Your task to perform on an android device: set default search engine in the chrome app Image 0: 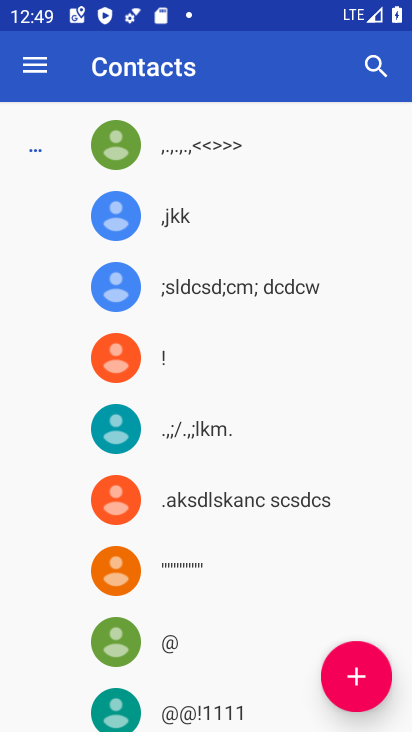
Step 0: press home button
Your task to perform on an android device: set default search engine in the chrome app Image 1: 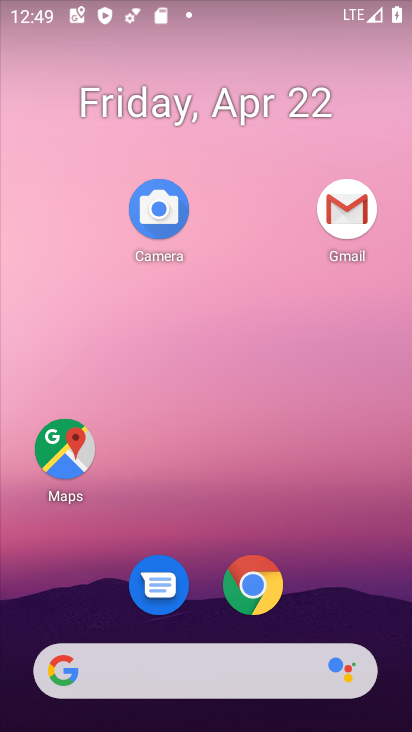
Step 1: click (267, 585)
Your task to perform on an android device: set default search engine in the chrome app Image 2: 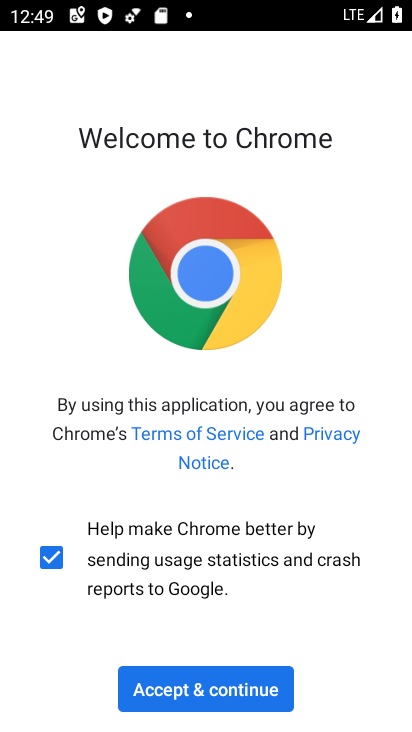
Step 2: click (262, 676)
Your task to perform on an android device: set default search engine in the chrome app Image 3: 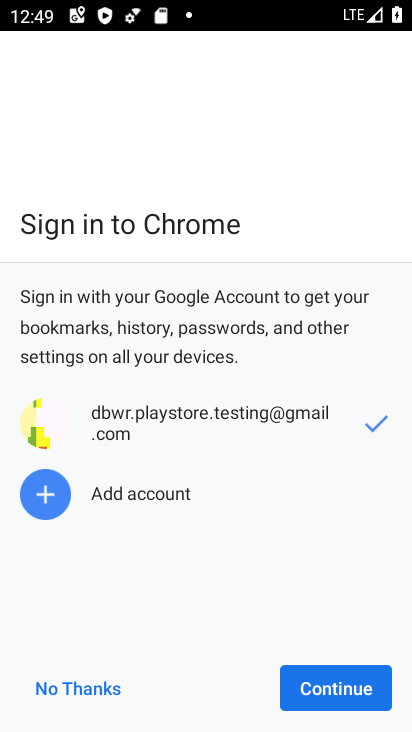
Step 3: click (316, 688)
Your task to perform on an android device: set default search engine in the chrome app Image 4: 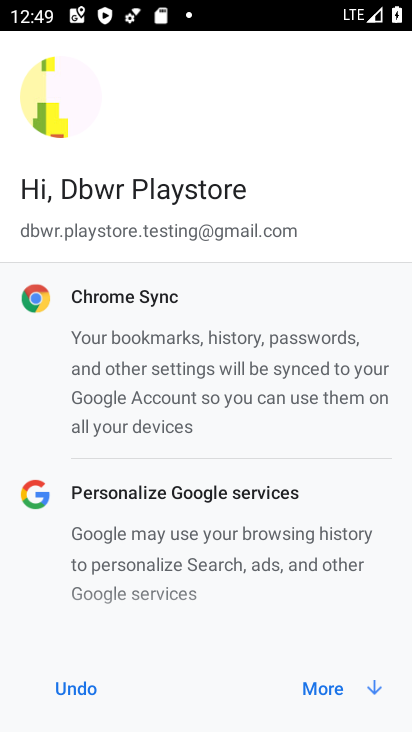
Step 4: click (322, 683)
Your task to perform on an android device: set default search engine in the chrome app Image 5: 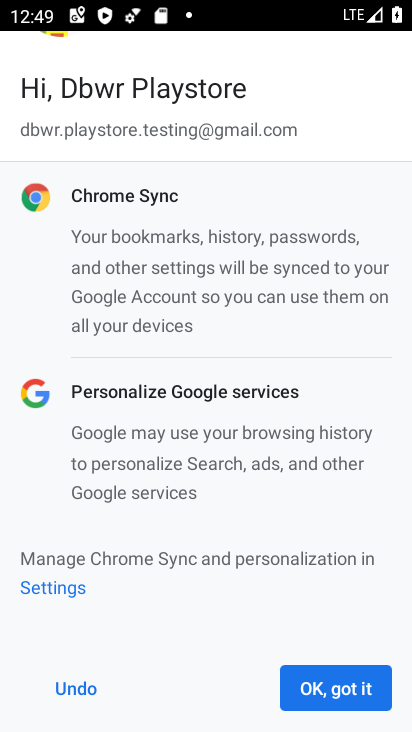
Step 5: click (324, 683)
Your task to perform on an android device: set default search engine in the chrome app Image 6: 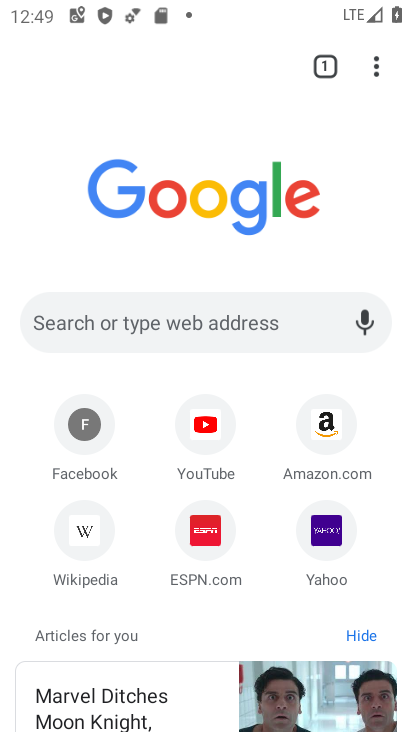
Step 6: drag from (375, 58) to (312, 571)
Your task to perform on an android device: set default search engine in the chrome app Image 7: 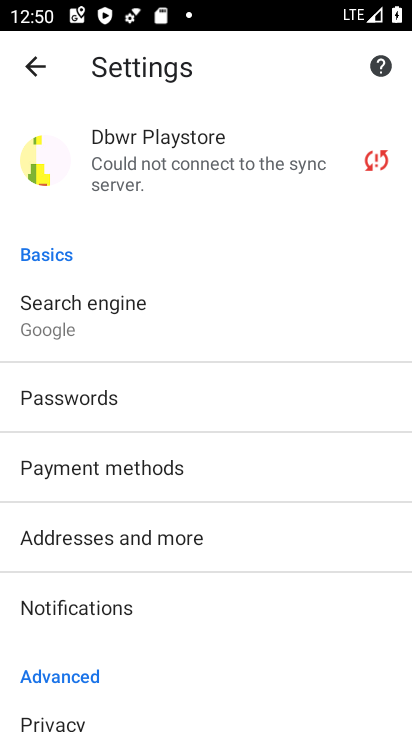
Step 7: click (128, 338)
Your task to perform on an android device: set default search engine in the chrome app Image 8: 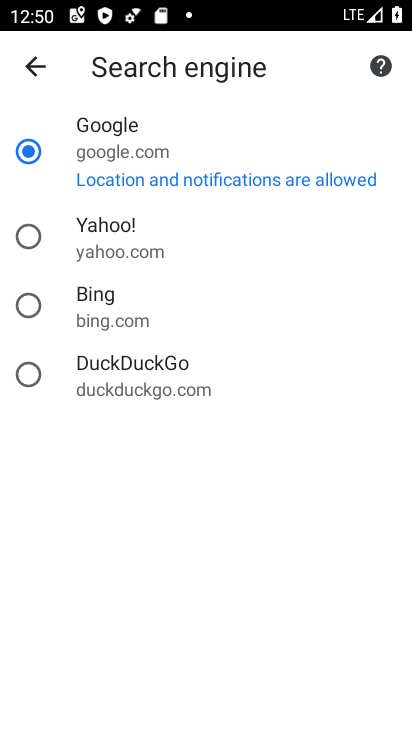
Step 8: task complete